Your task to perform on an android device: change keyboard looks Image 0: 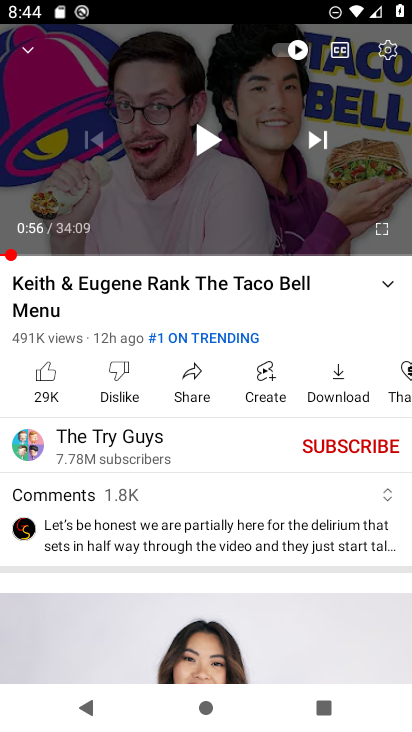
Step 0: press home button
Your task to perform on an android device: change keyboard looks Image 1: 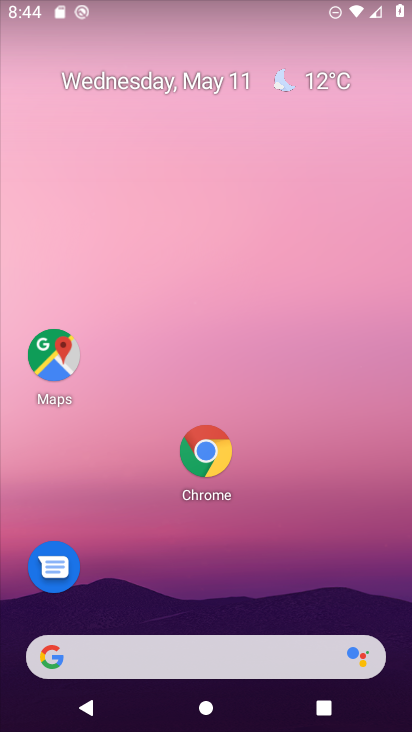
Step 1: drag from (201, 670) to (247, 178)
Your task to perform on an android device: change keyboard looks Image 2: 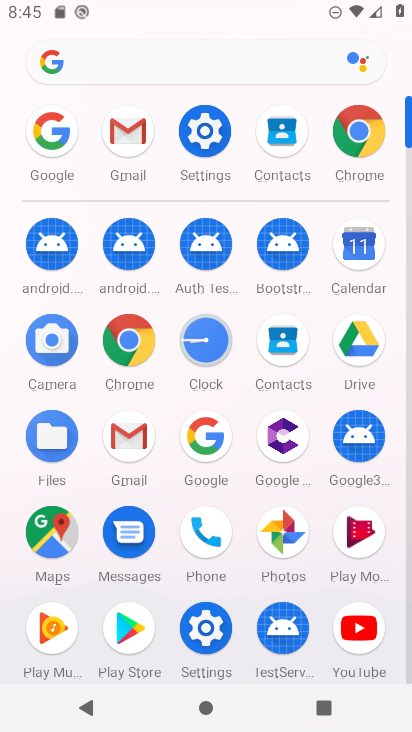
Step 2: click (206, 141)
Your task to perform on an android device: change keyboard looks Image 3: 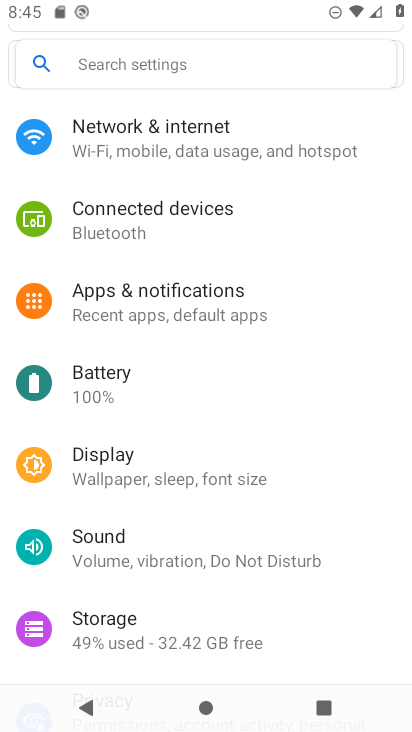
Step 3: drag from (211, 637) to (237, 131)
Your task to perform on an android device: change keyboard looks Image 4: 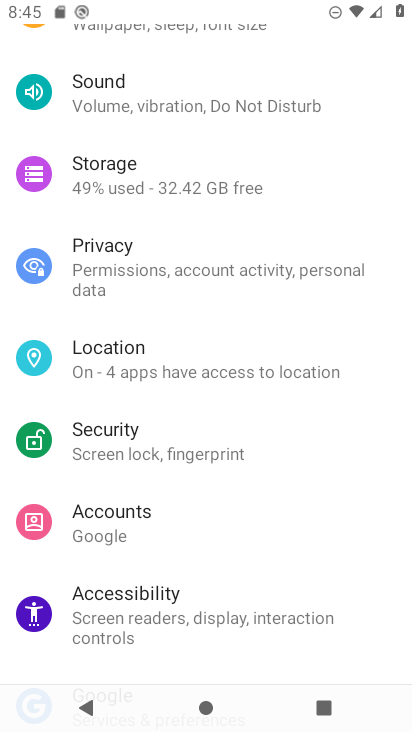
Step 4: drag from (187, 494) to (242, 247)
Your task to perform on an android device: change keyboard looks Image 5: 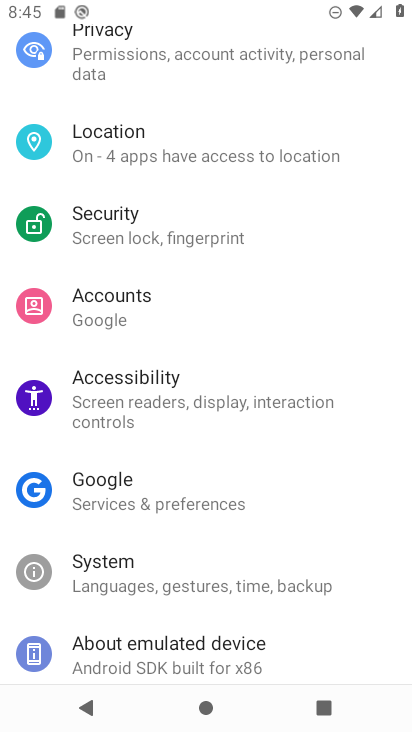
Step 5: click (109, 566)
Your task to perform on an android device: change keyboard looks Image 6: 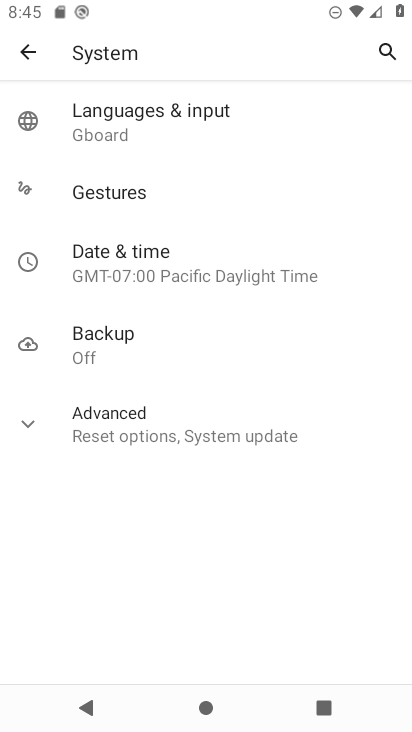
Step 6: click (110, 134)
Your task to perform on an android device: change keyboard looks Image 7: 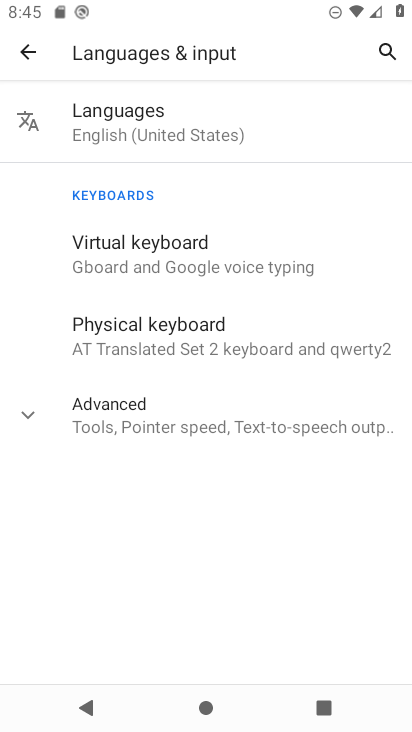
Step 7: click (144, 256)
Your task to perform on an android device: change keyboard looks Image 8: 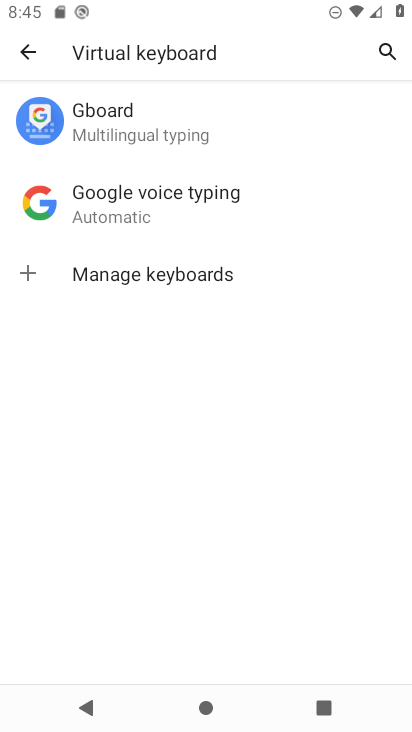
Step 8: click (133, 127)
Your task to perform on an android device: change keyboard looks Image 9: 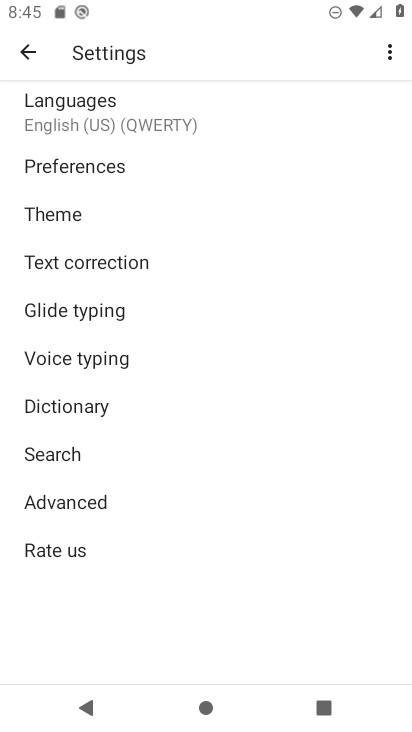
Step 9: click (54, 217)
Your task to perform on an android device: change keyboard looks Image 10: 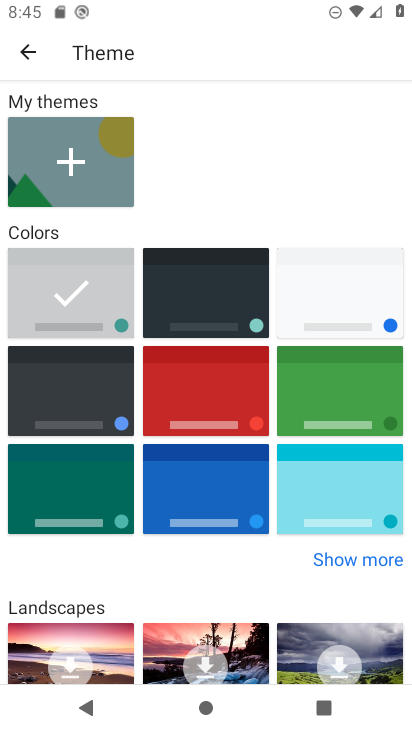
Step 10: click (196, 471)
Your task to perform on an android device: change keyboard looks Image 11: 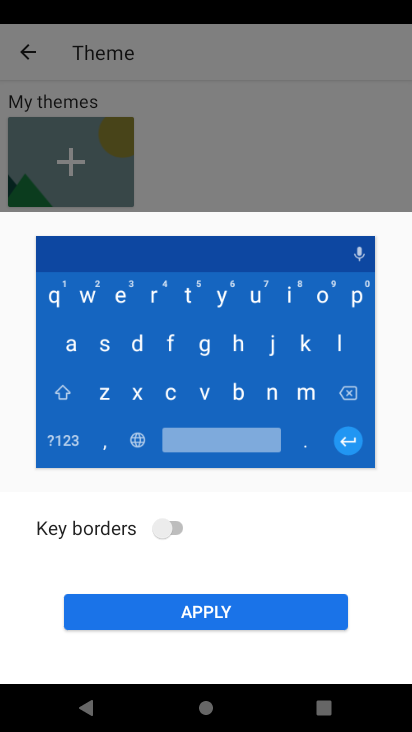
Step 11: click (202, 607)
Your task to perform on an android device: change keyboard looks Image 12: 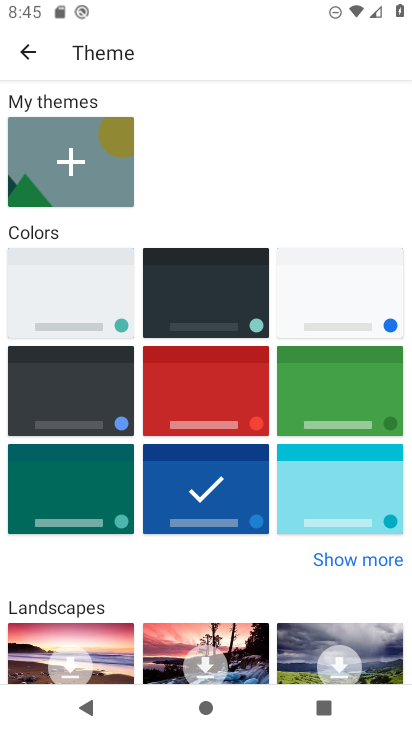
Step 12: task complete